Your task to perform on an android device: check data usage Image 0: 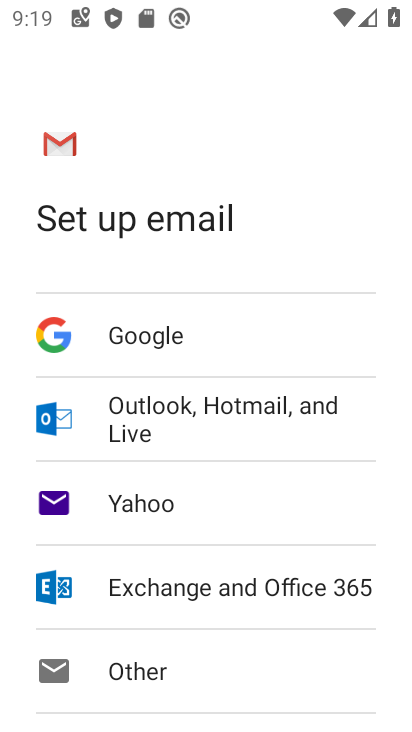
Step 0: press back button
Your task to perform on an android device: check data usage Image 1: 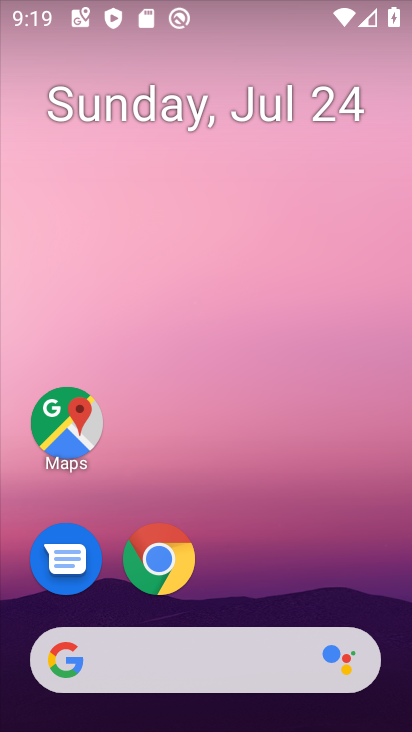
Step 1: drag from (347, 549) to (267, 17)
Your task to perform on an android device: check data usage Image 2: 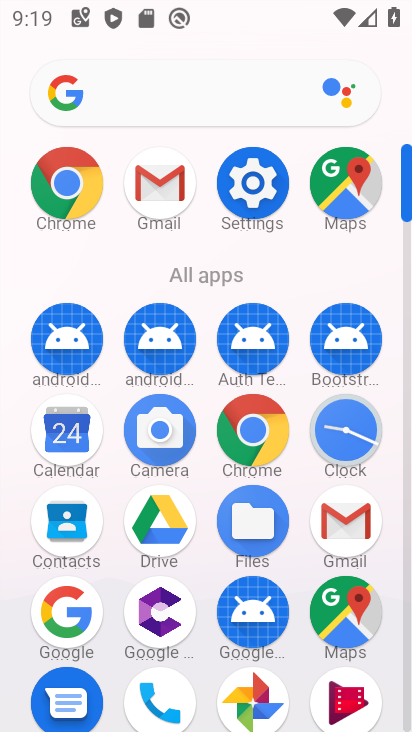
Step 2: click (246, 219)
Your task to perform on an android device: check data usage Image 3: 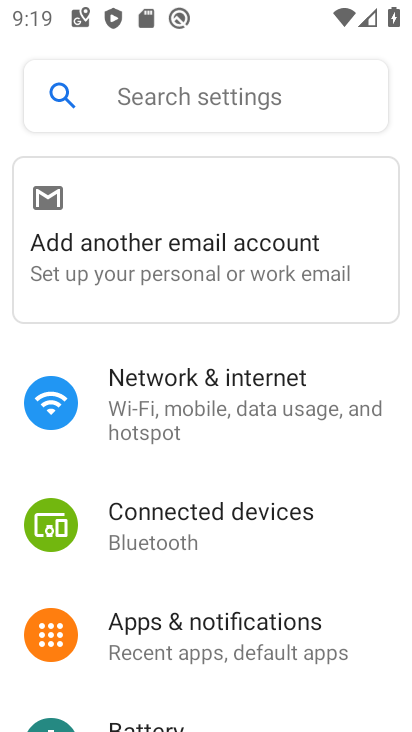
Step 3: click (225, 403)
Your task to perform on an android device: check data usage Image 4: 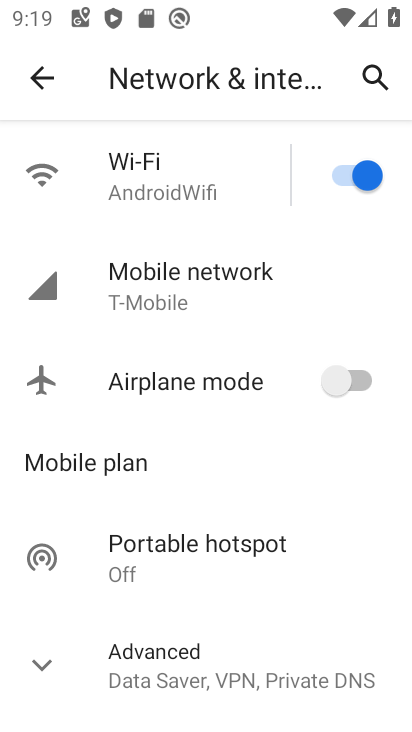
Step 4: click (154, 271)
Your task to perform on an android device: check data usage Image 5: 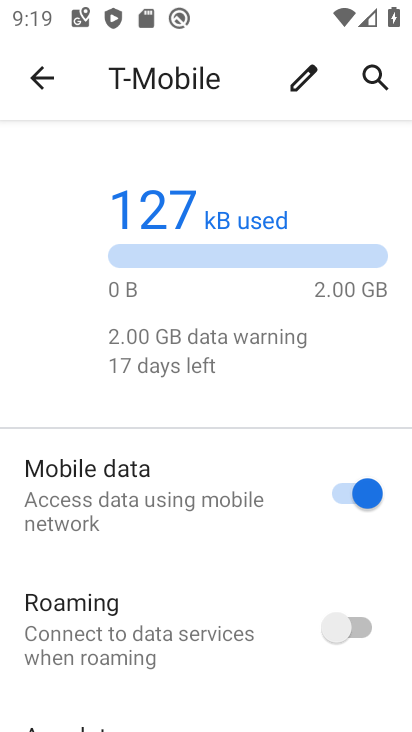
Step 5: drag from (154, 681) to (239, 62)
Your task to perform on an android device: check data usage Image 6: 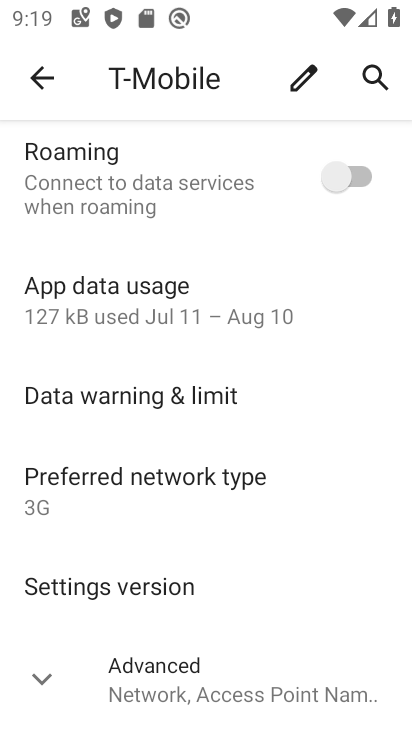
Step 6: click (239, 310)
Your task to perform on an android device: check data usage Image 7: 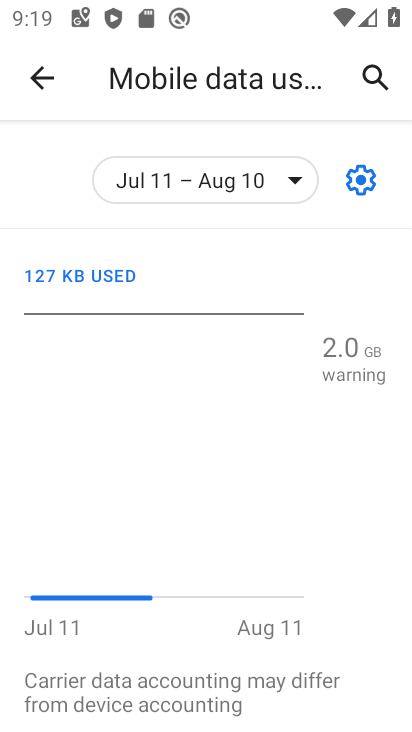
Step 7: task complete